Your task to perform on an android device: check battery use Image 0: 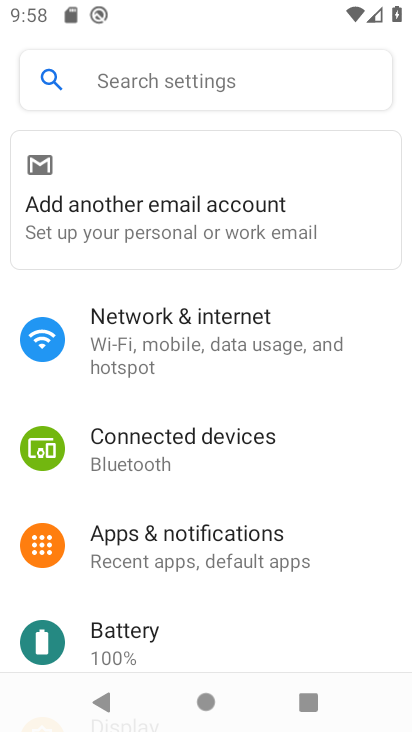
Step 0: click (213, 639)
Your task to perform on an android device: check battery use Image 1: 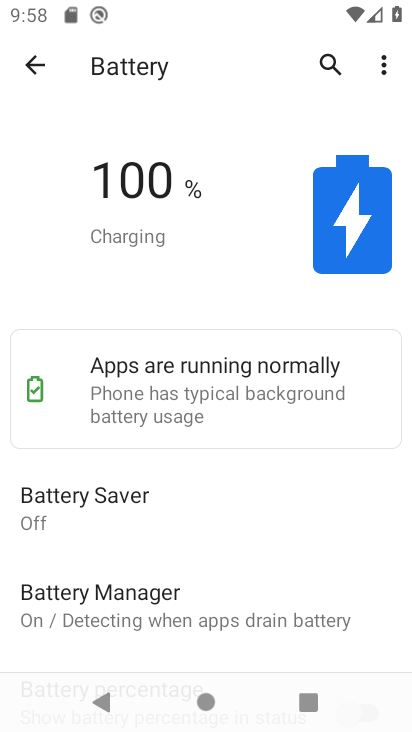
Step 1: task complete